Your task to perform on an android device: make emails show in primary in the gmail app Image 0: 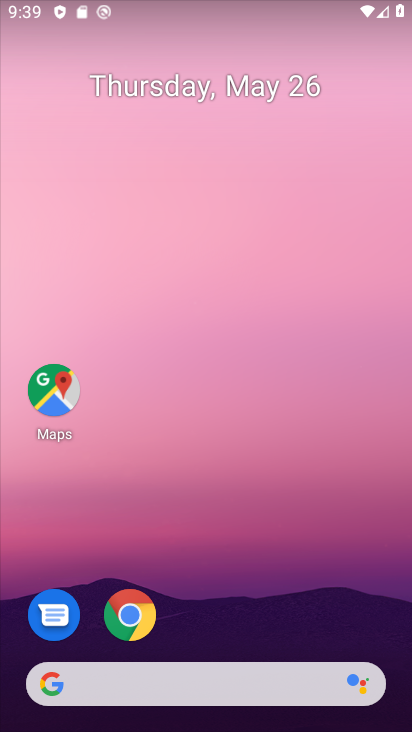
Step 0: drag from (296, 710) to (208, 84)
Your task to perform on an android device: make emails show in primary in the gmail app Image 1: 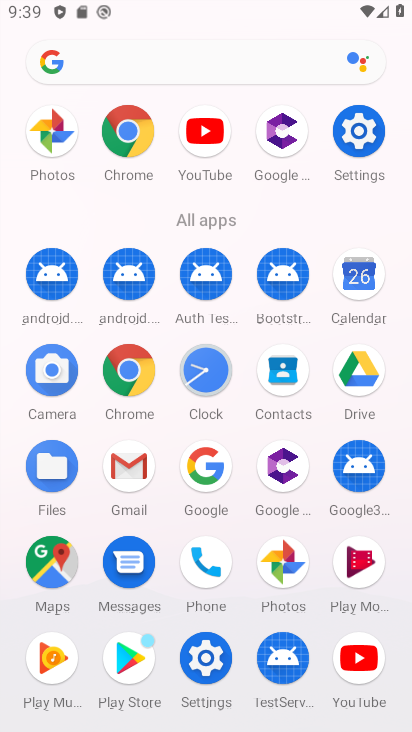
Step 1: click (138, 481)
Your task to perform on an android device: make emails show in primary in the gmail app Image 2: 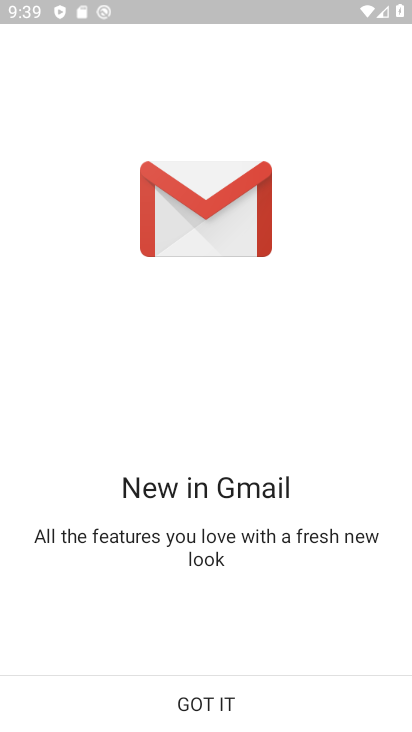
Step 2: click (235, 691)
Your task to perform on an android device: make emails show in primary in the gmail app Image 3: 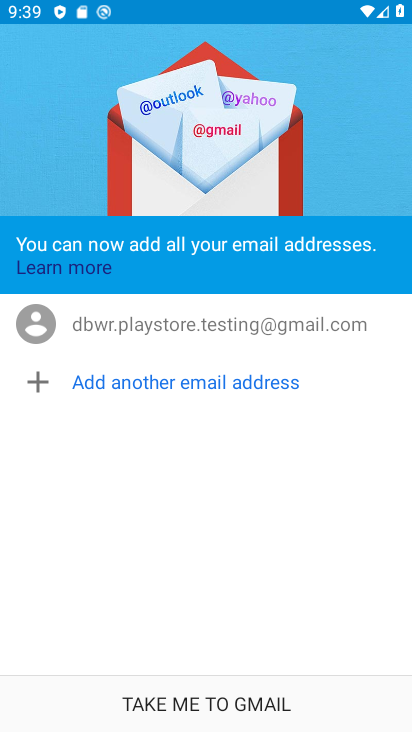
Step 3: click (227, 725)
Your task to perform on an android device: make emails show in primary in the gmail app Image 4: 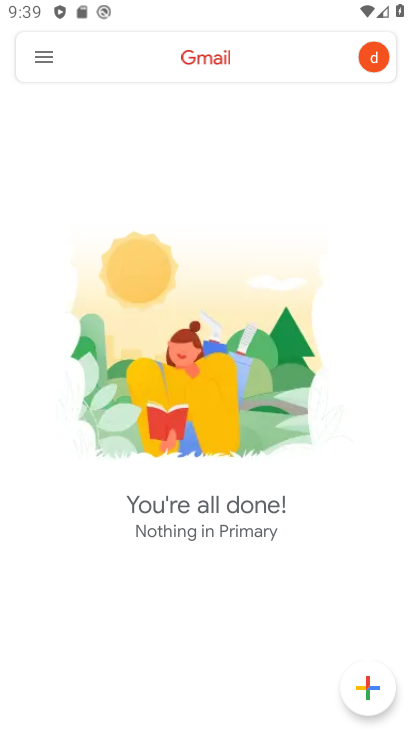
Step 4: click (38, 59)
Your task to perform on an android device: make emails show in primary in the gmail app Image 5: 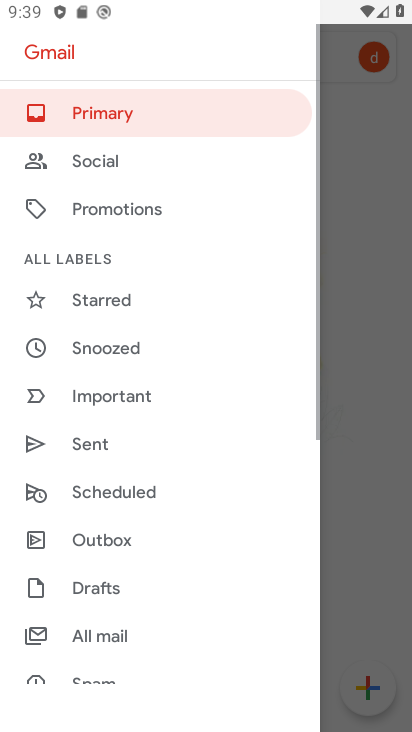
Step 5: click (130, 112)
Your task to perform on an android device: make emails show in primary in the gmail app Image 6: 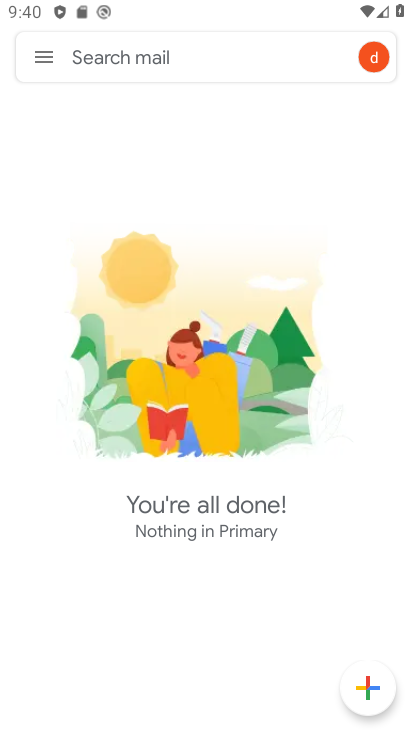
Step 6: task complete